Your task to perform on an android device: turn off wifi Image 0: 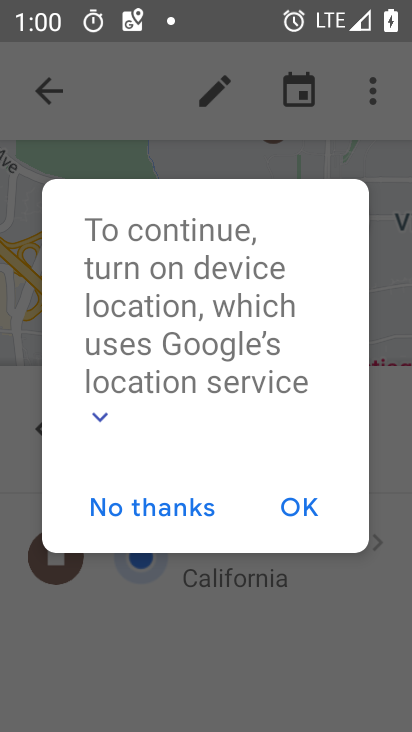
Step 0: press home button
Your task to perform on an android device: turn off wifi Image 1: 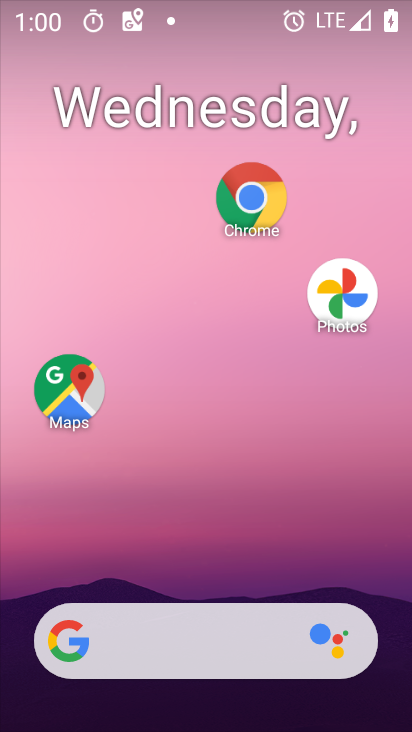
Step 1: drag from (194, 637) to (214, 45)
Your task to perform on an android device: turn off wifi Image 2: 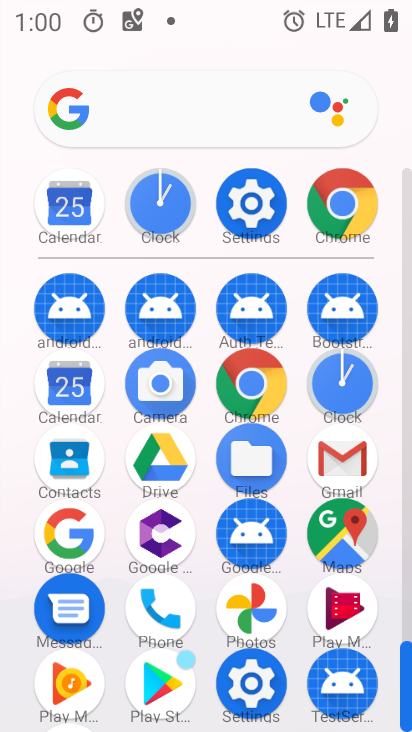
Step 2: click (271, 211)
Your task to perform on an android device: turn off wifi Image 3: 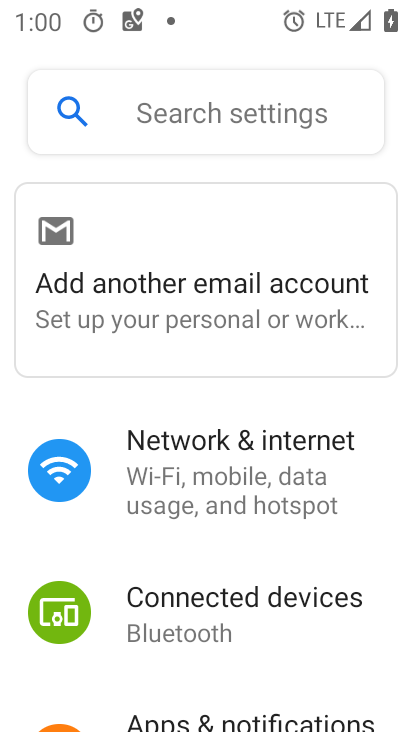
Step 3: click (175, 458)
Your task to perform on an android device: turn off wifi Image 4: 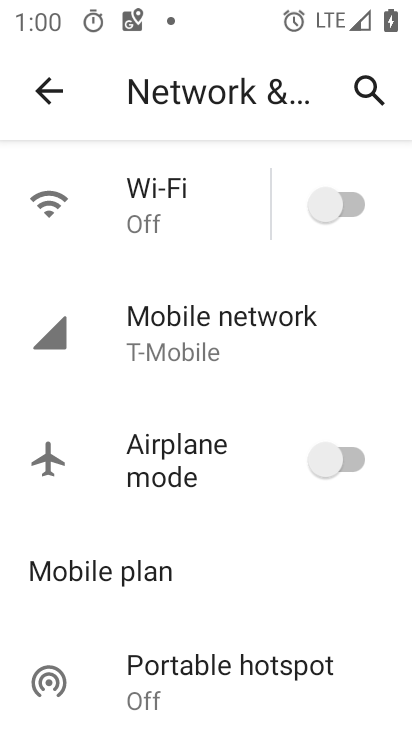
Step 4: task complete